Your task to perform on an android device: Open Maps and search for coffee Image 0: 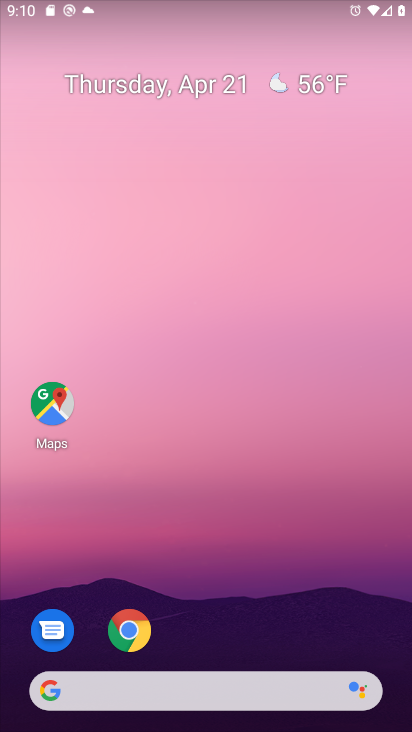
Step 0: click (126, 631)
Your task to perform on an android device: Open Maps and search for coffee Image 1: 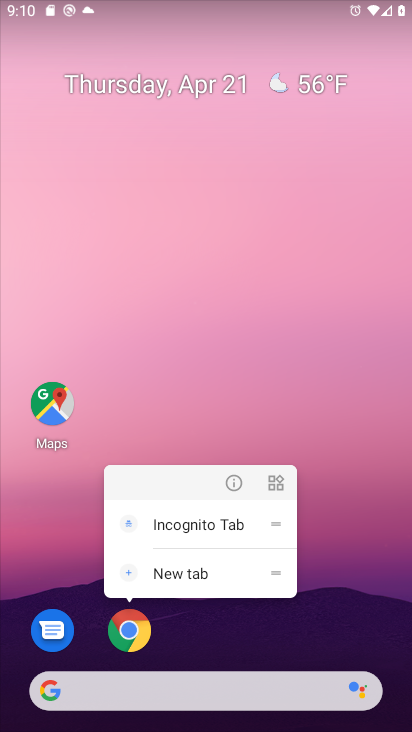
Step 1: click (54, 381)
Your task to perform on an android device: Open Maps and search for coffee Image 2: 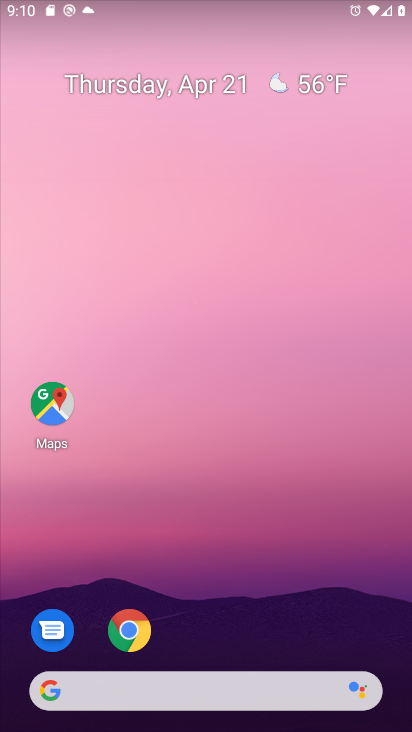
Step 2: click (51, 395)
Your task to perform on an android device: Open Maps and search for coffee Image 3: 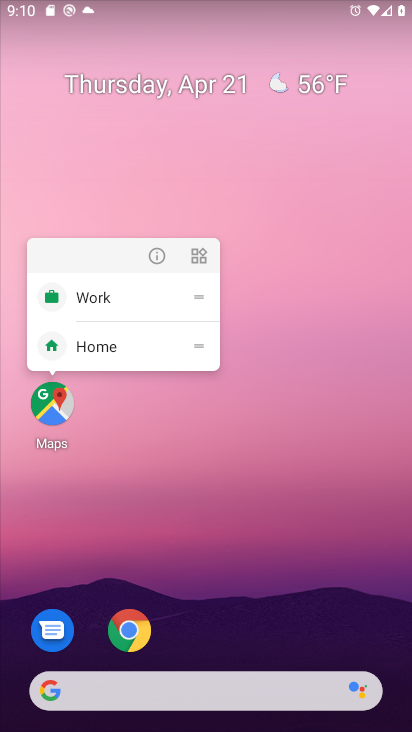
Step 3: click (48, 403)
Your task to perform on an android device: Open Maps and search for coffee Image 4: 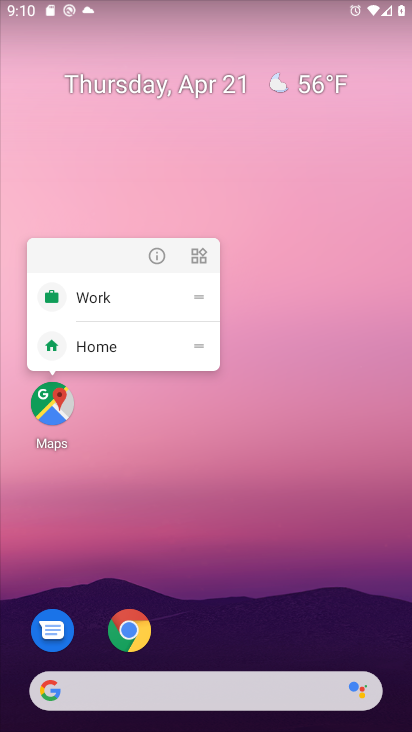
Step 4: click (42, 408)
Your task to perform on an android device: Open Maps and search for coffee Image 5: 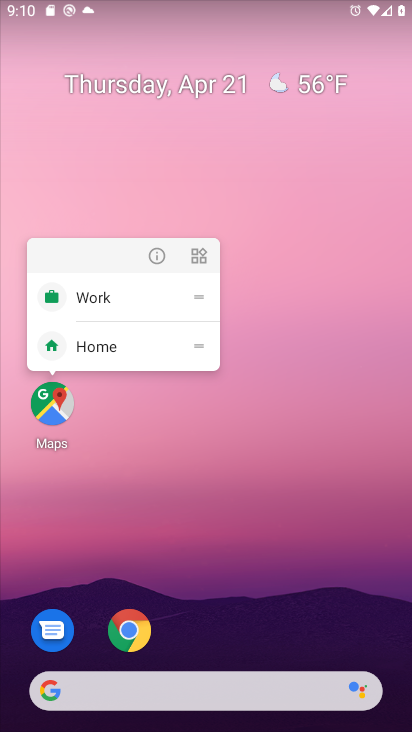
Step 5: click (42, 407)
Your task to perform on an android device: Open Maps and search for coffee Image 6: 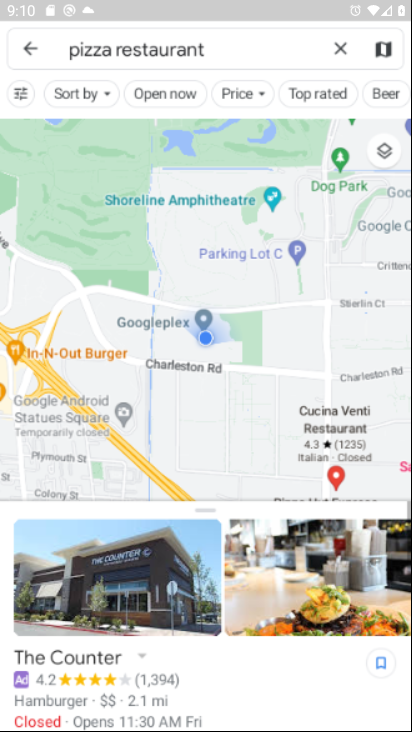
Step 6: click (43, 407)
Your task to perform on an android device: Open Maps and search for coffee Image 7: 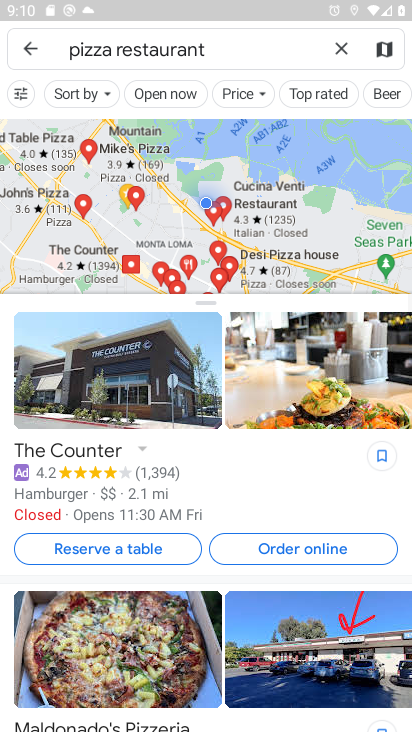
Step 7: click (343, 44)
Your task to perform on an android device: Open Maps and search for coffee Image 8: 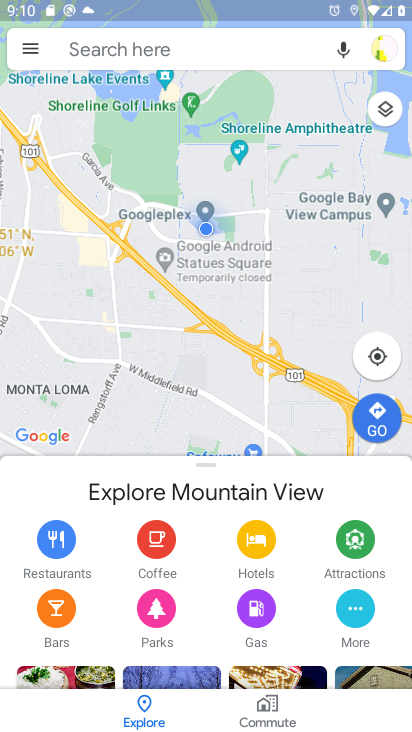
Step 8: click (98, 38)
Your task to perform on an android device: Open Maps and search for coffee Image 9: 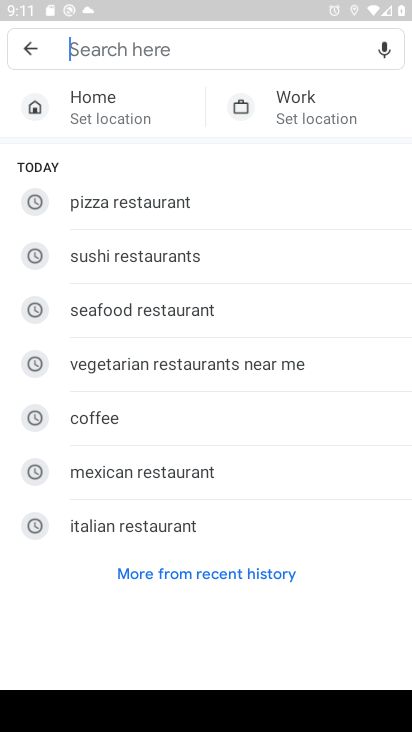
Step 9: type "coffee"
Your task to perform on an android device: Open Maps and search for coffee Image 10: 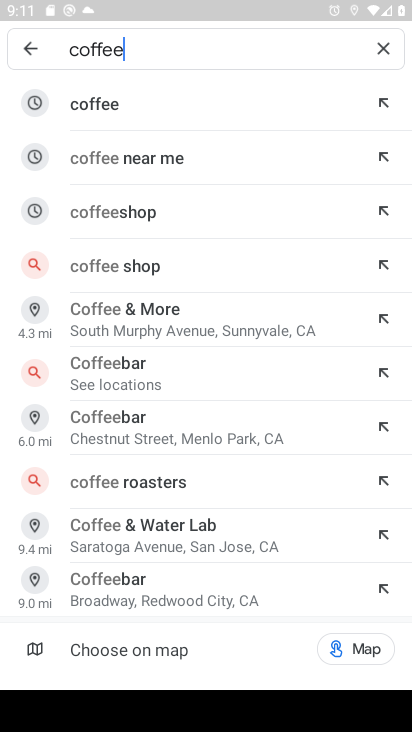
Step 10: click (142, 105)
Your task to perform on an android device: Open Maps and search for coffee Image 11: 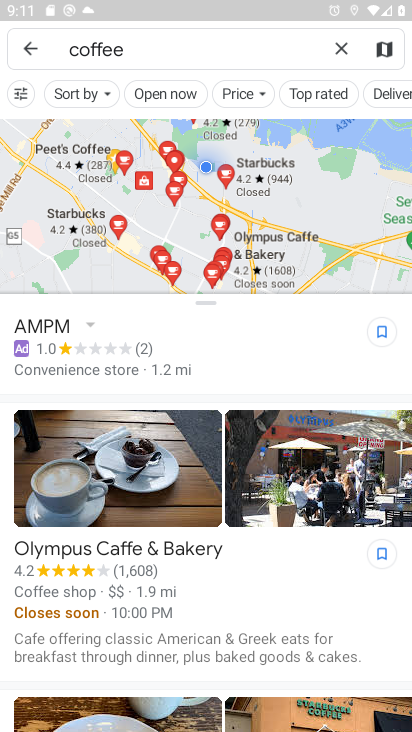
Step 11: task complete